Your task to perform on an android device: What is the capital of India? Image 0: 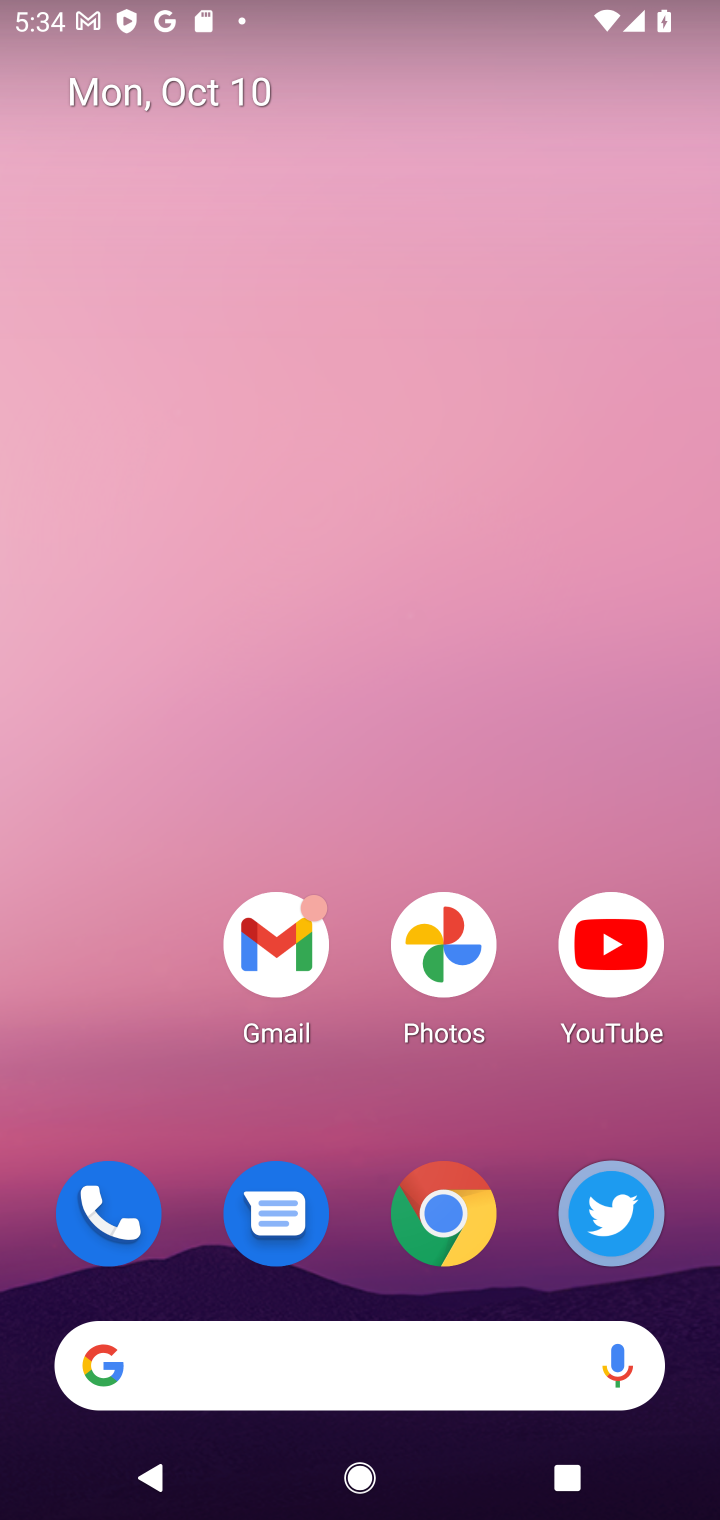
Step 0: click (361, 1368)
Your task to perform on an android device: What is the capital of India? Image 1: 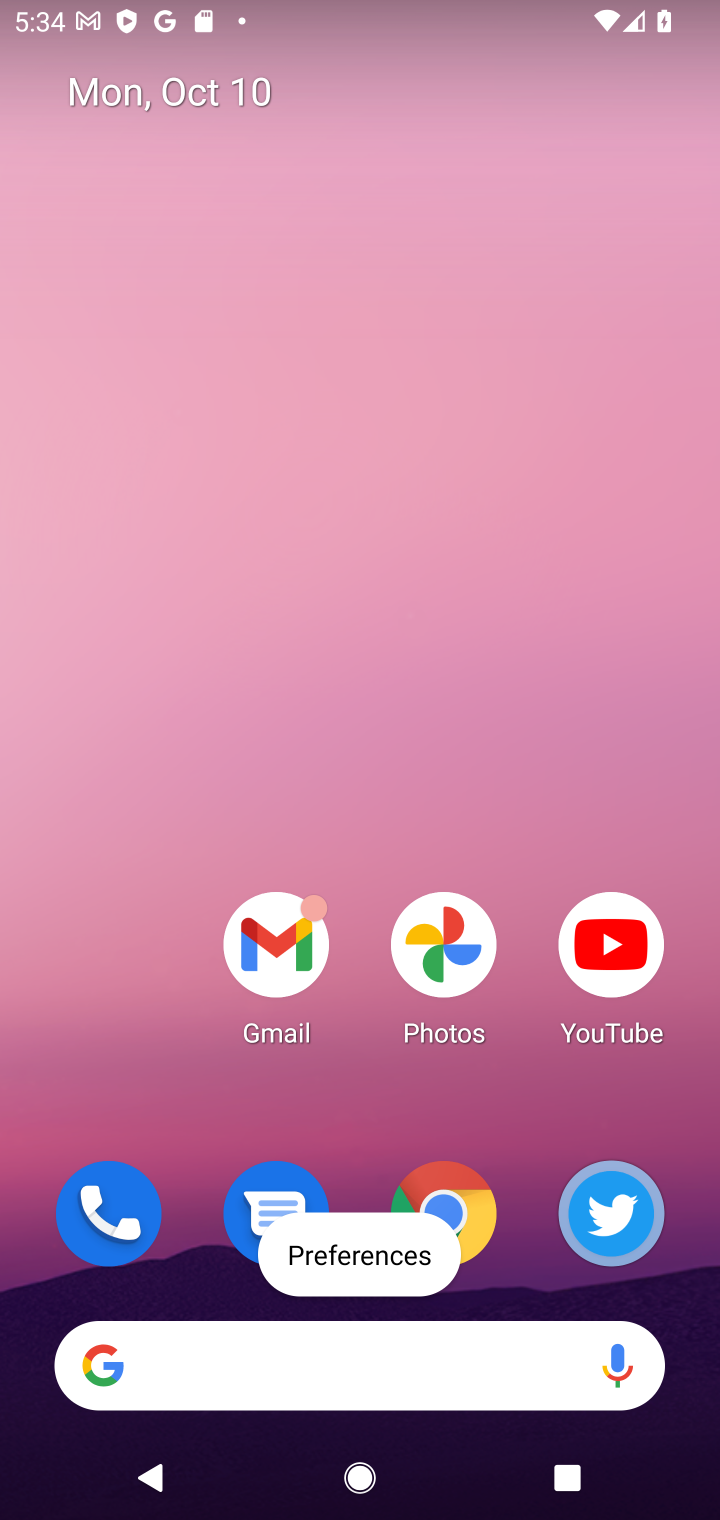
Step 1: click (260, 1343)
Your task to perform on an android device: What is the capital of India? Image 2: 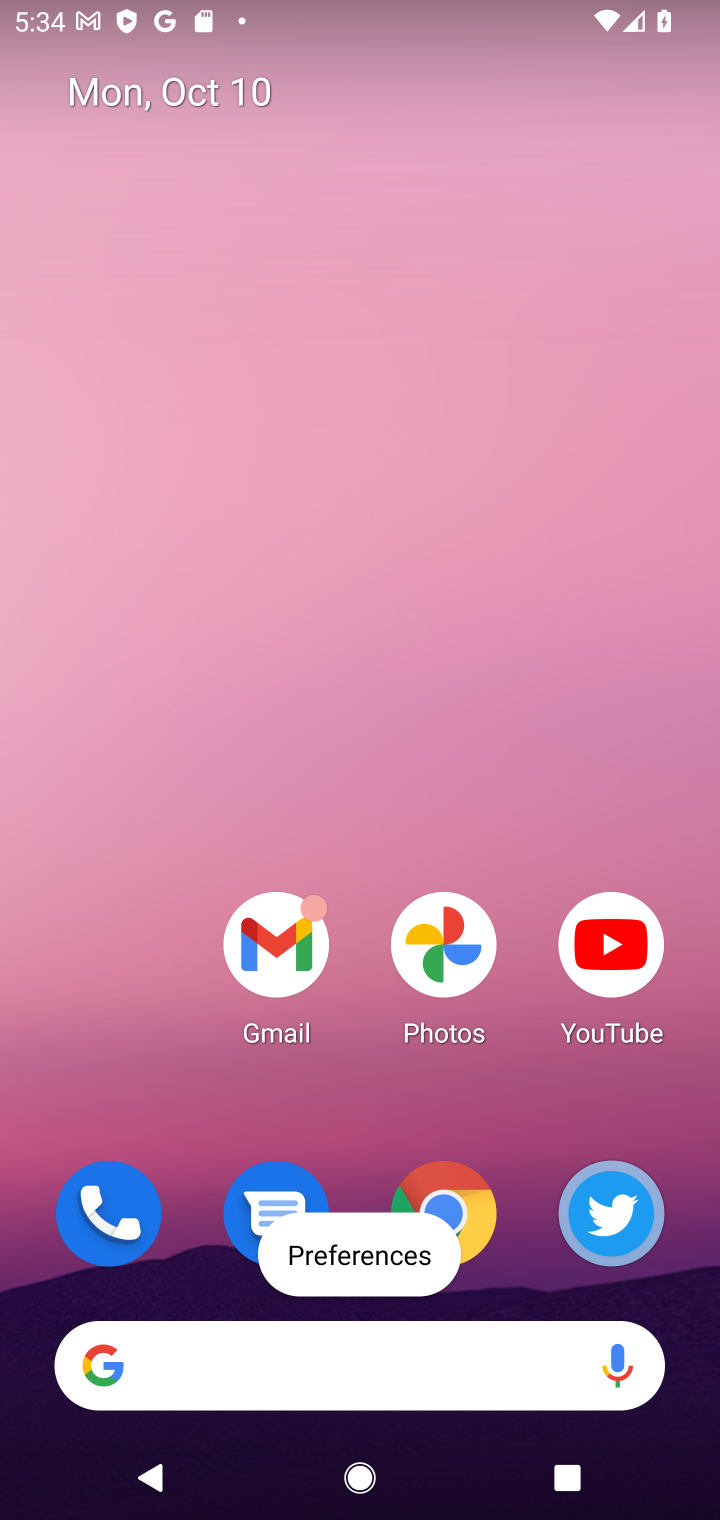
Step 2: click (276, 1359)
Your task to perform on an android device: What is the capital of India? Image 3: 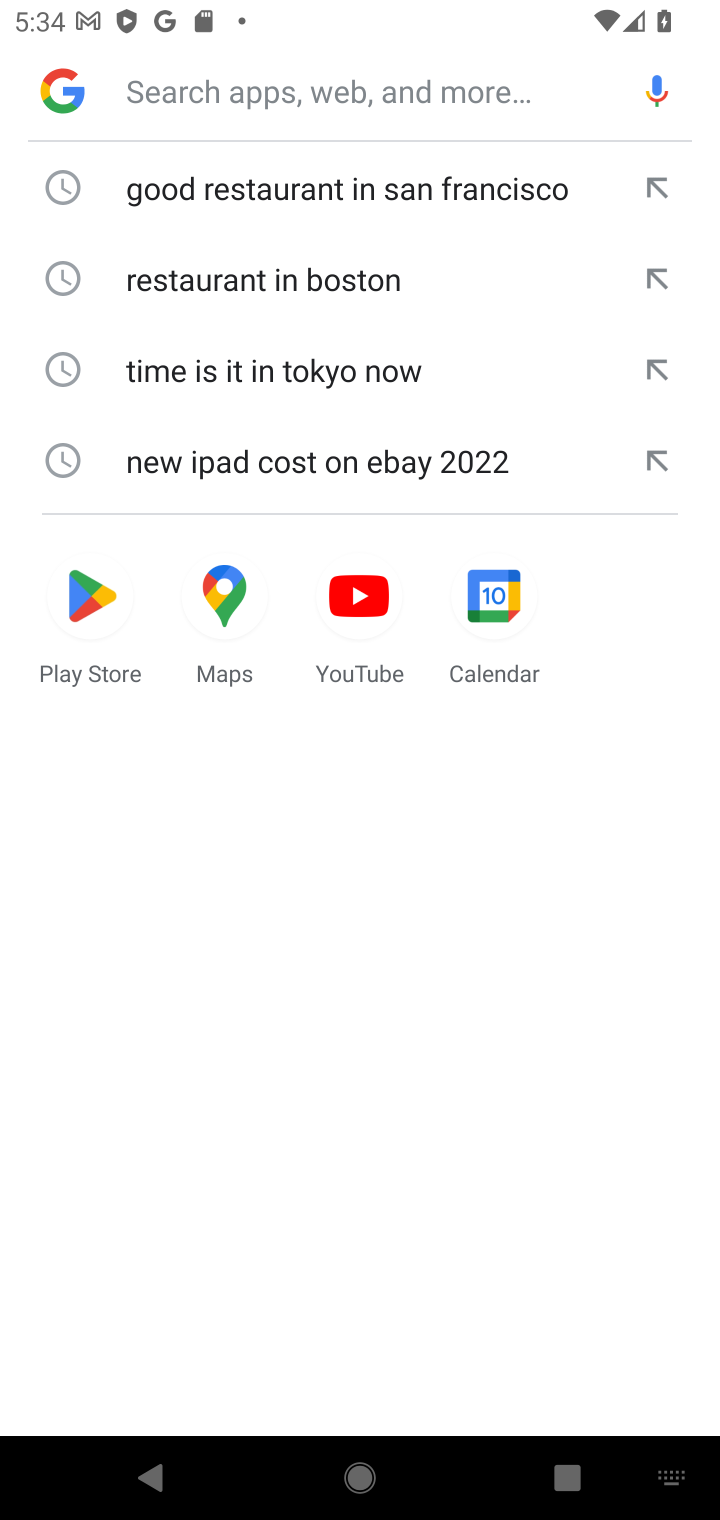
Step 3: type "capital of India"
Your task to perform on an android device: What is the capital of India? Image 4: 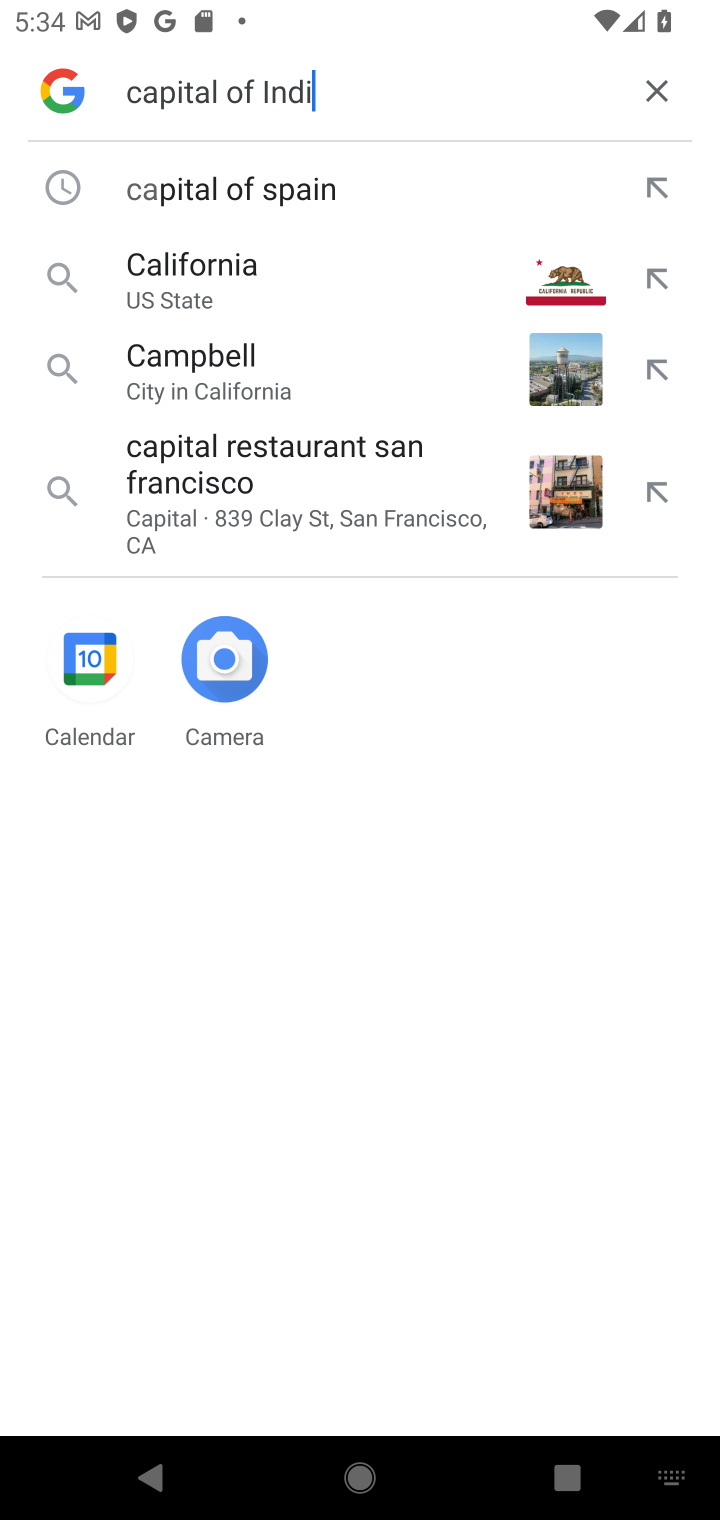
Step 4: type ""
Your task to perform on an android device: What is the capital of India? Image 5: 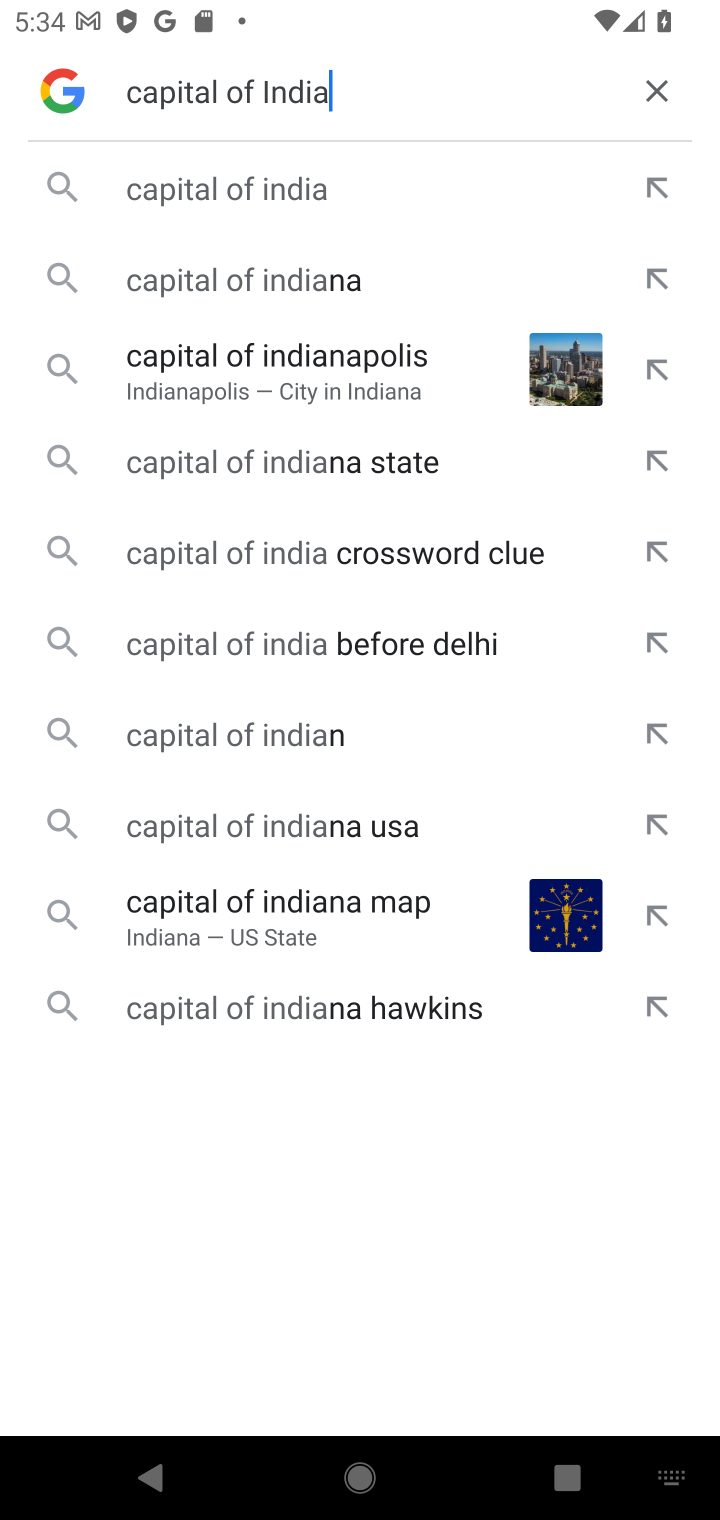
Step 5: click (179, 194)
Your task to perform on an android device: What is the capital of India? Image 6: 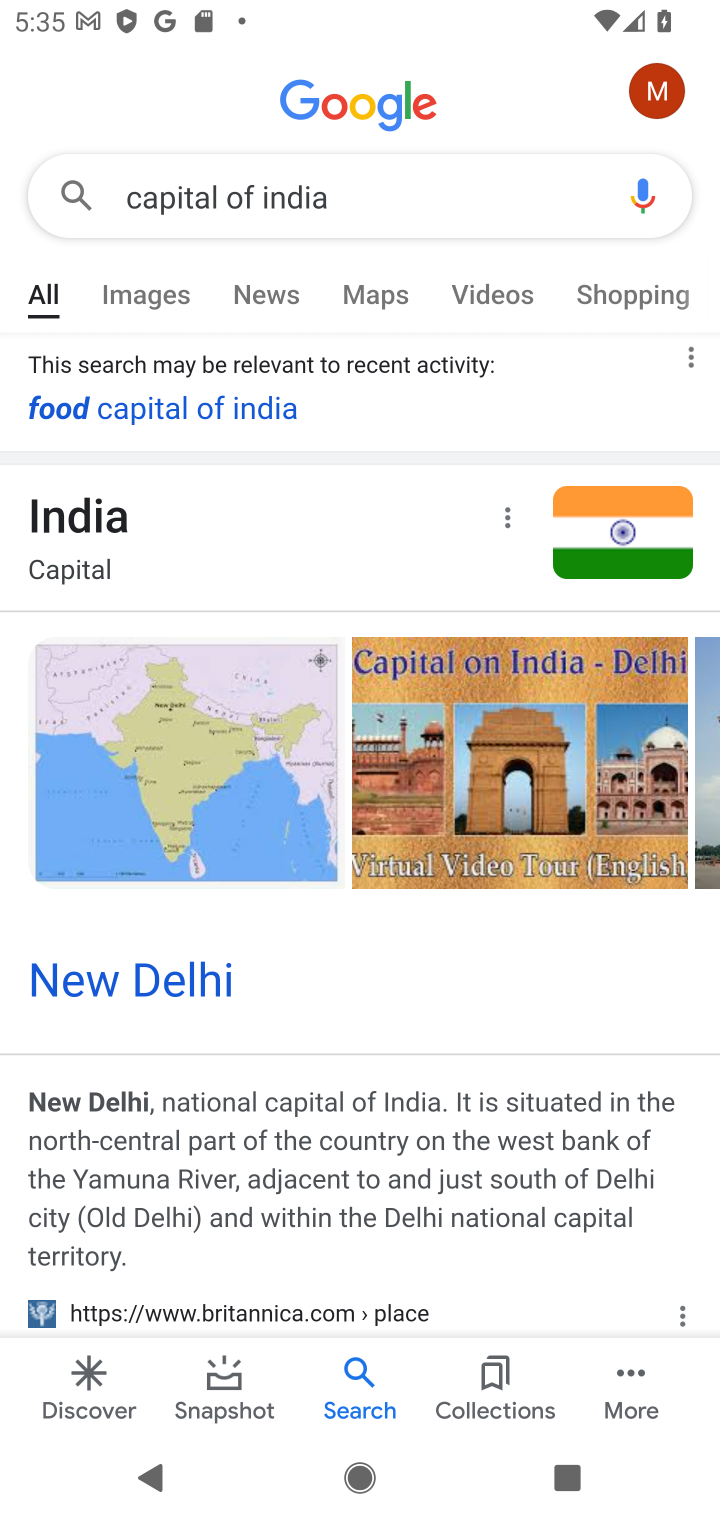
Step 6: task complete